Your task to perform on an android device: Search for sushi restaurants on Maps Image 0: 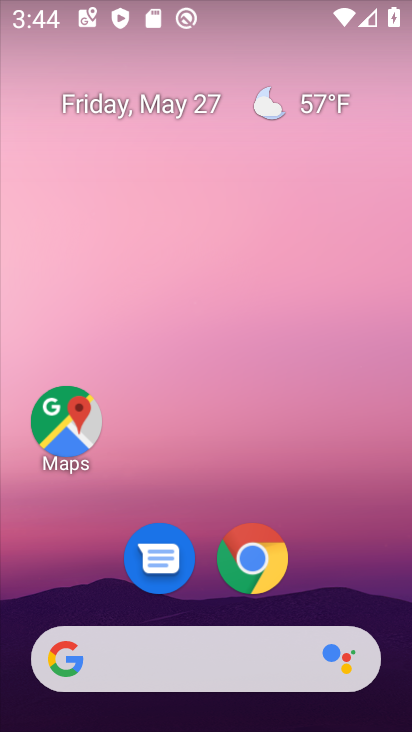
Step 0: drag from (342, 564) to (342, 71)
Your task to perform on an android device: Search for sushi restaurants on Maps Image 1: 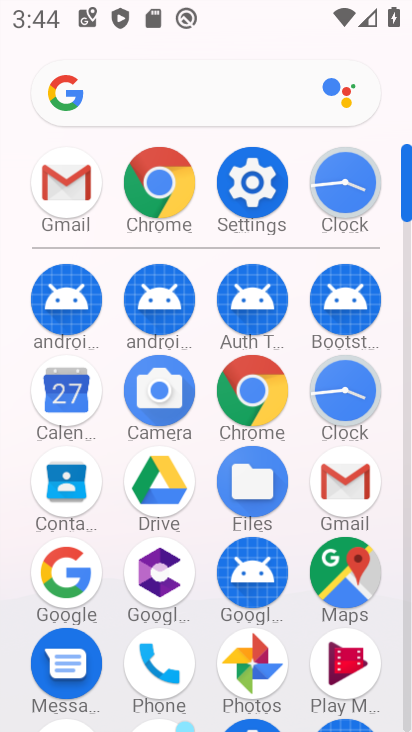
Step 1: click (324, 585)
Your task to perform on an android device: Search for sushi restaurants on Maps Image 2: 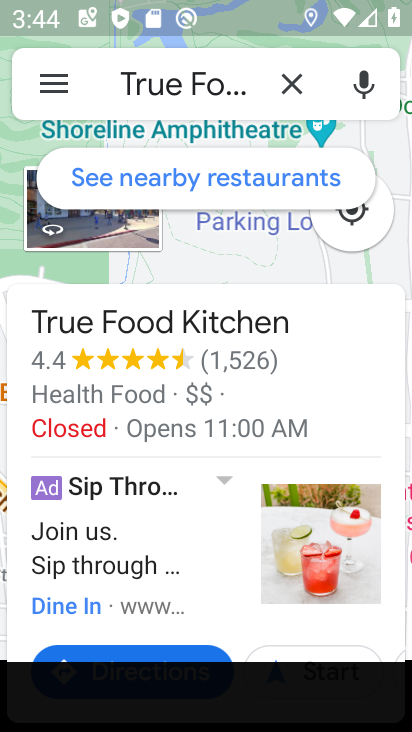
Step 2: click (292, 99)
Your task to perform on an android device: Search for sushi restaurants on Maps Image 3: 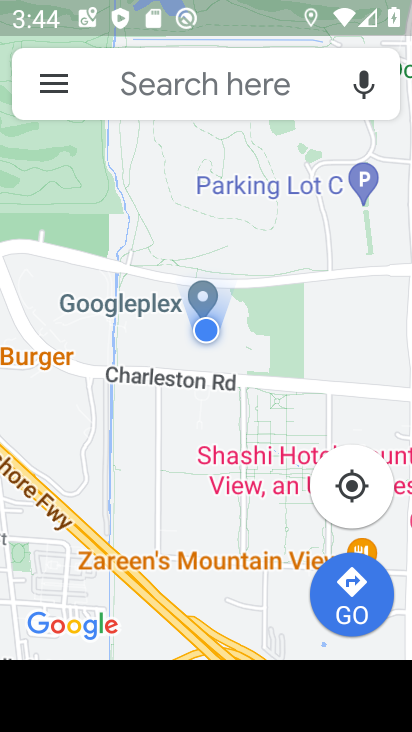
Step 3: click (174, 88)
Your task to perform on an android device: Search for sushi restaurants on Maps Image 4: 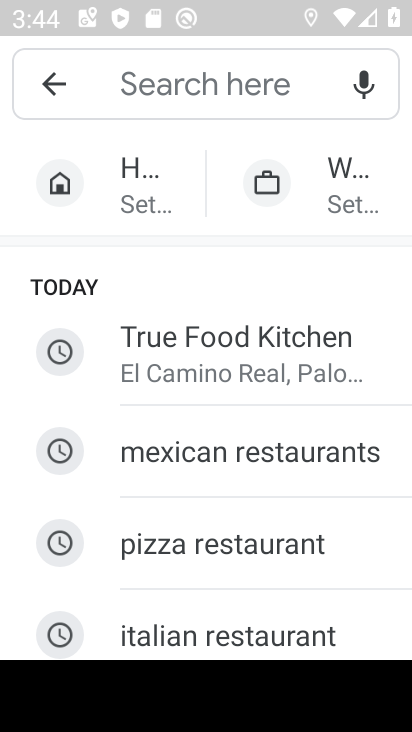
Step 4: type "sushi"
Your task to perform on an android device: Search for sushi restaurants on Maps Image 5: 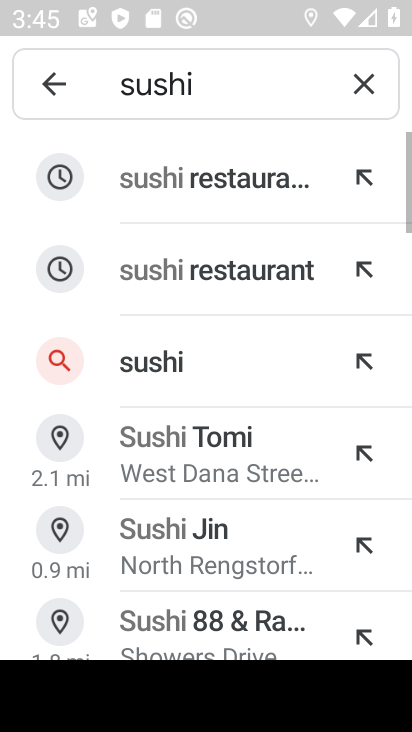
Step 5: click (178, 212)
Your task to perform on an android device: Search for sushi restaurants on Maps Image 6: 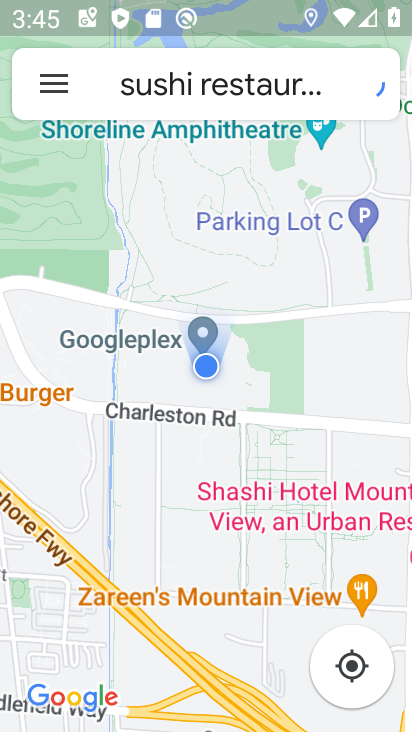
Step 6: task complete